Your task to perform on an android device: toggle airplane mode Image 0: 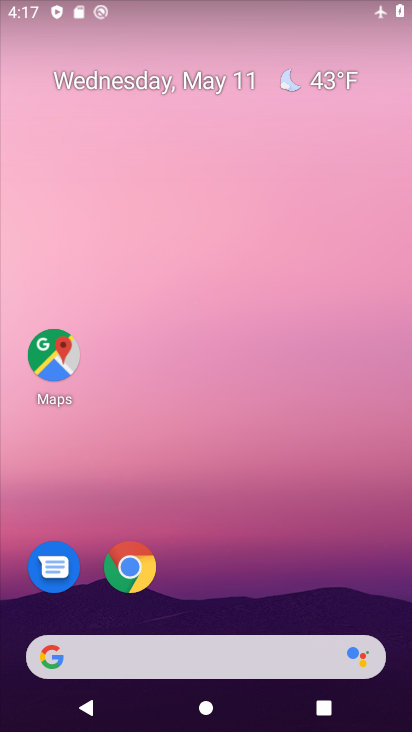
Step 0: drag from (244, 601) to (185, 36)
Your task to perform on an android device: toggle airplane mode Image 1: 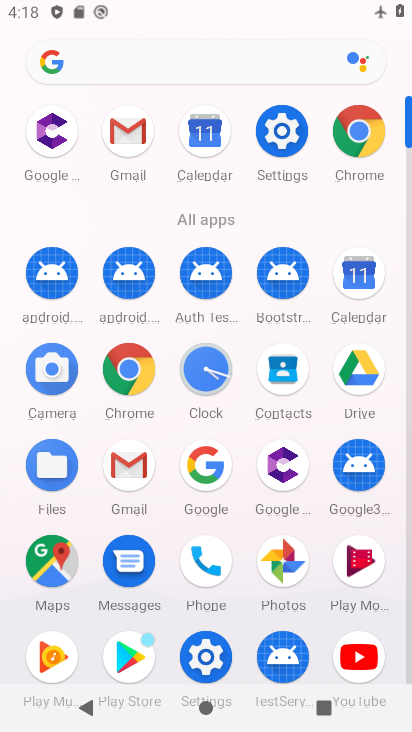
Step 1: click (286, 136)
Your task to perform on an android device: toggle airplane mode Image 2: 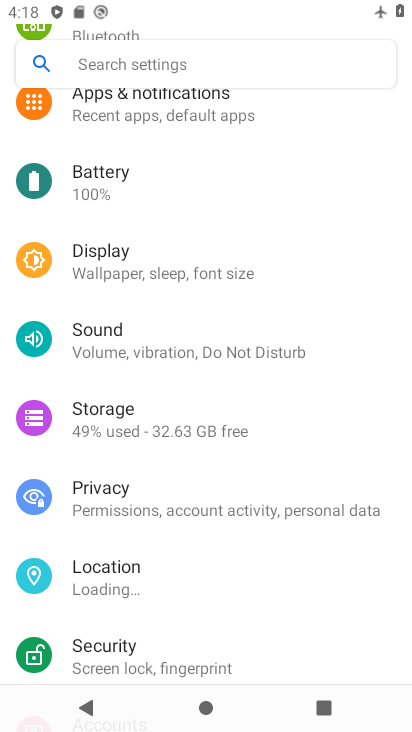
Step 2: drag from (278, 161) to (347, 564)
Your task to perform on an android device: toggle airplane mode Image 3: 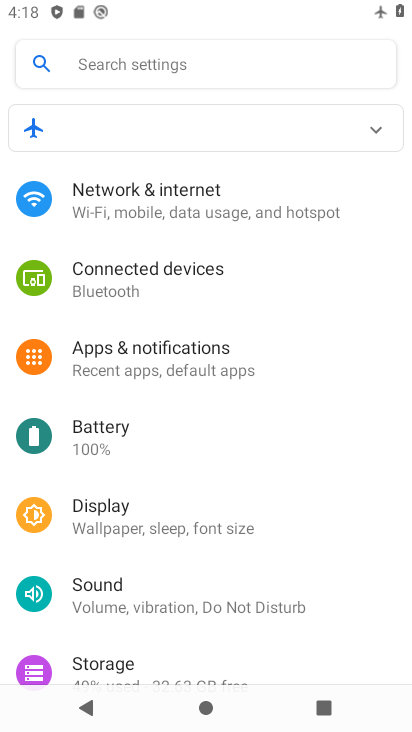
Step 3: click (230, 195)
Your task to perform on an android device: toggle airplane mode Image 4: 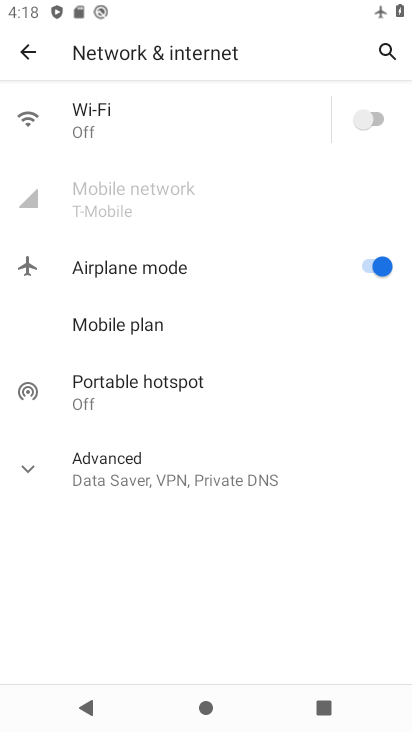
Step 4: click (289, 268)
Your task to perform on an android device: toggle airplane mode Image 5: 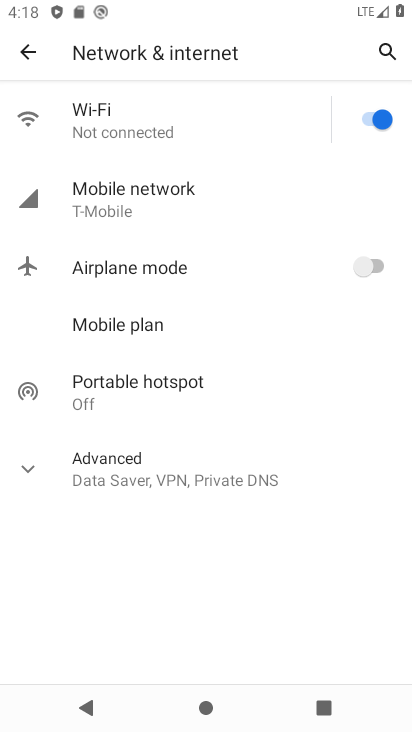
Step 5: task complete